Your task to perform on an android device: Go to display settings Image 0: 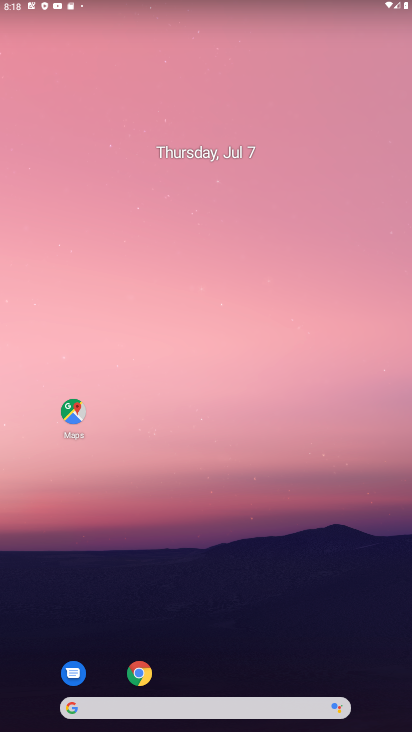
Step 0: press home button
Your task to perform on an android device: Go to display settings Image 1: 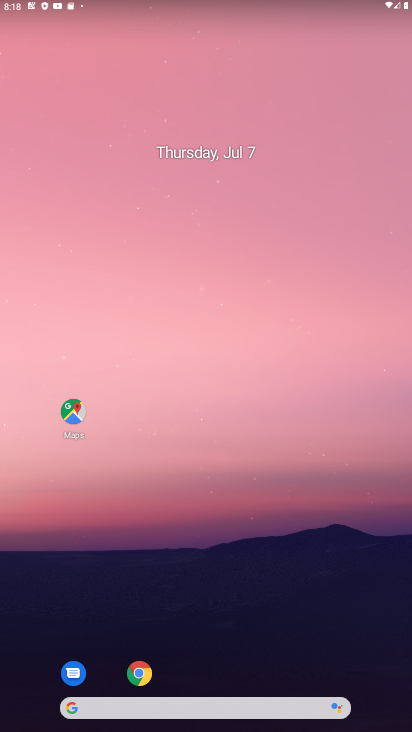
Step 1: drag from (218, 672) to (214, 19)
Your task to perform on an android device: Go to display settings Image 2: 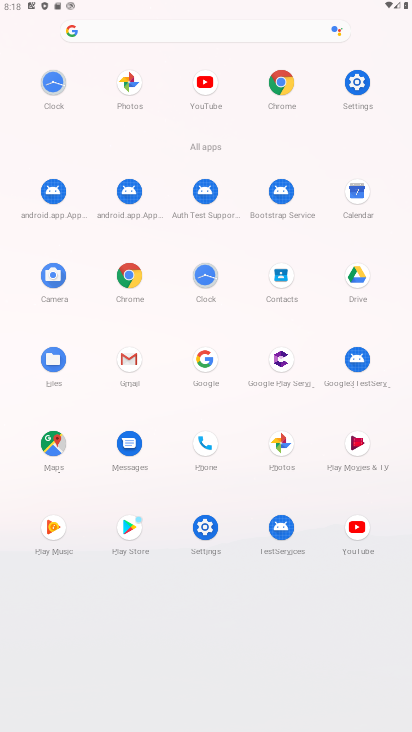
Step 2: click (359, 87)
Your task to perform on an android device: Go to display settings Image 3: 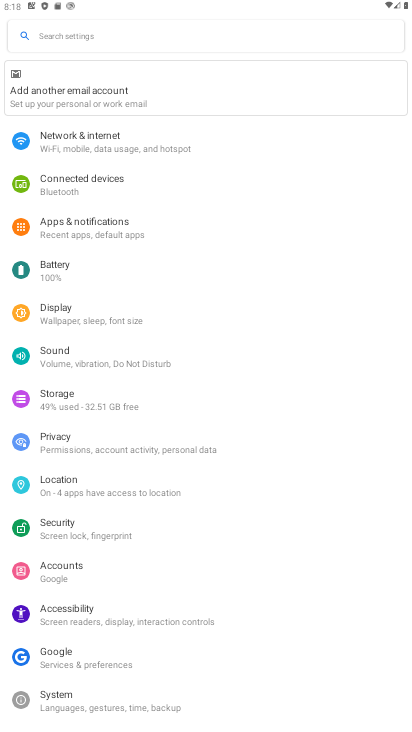
Step 3: click (69, 306)
Your task to perform on an android device: Go to display settings Image 4: 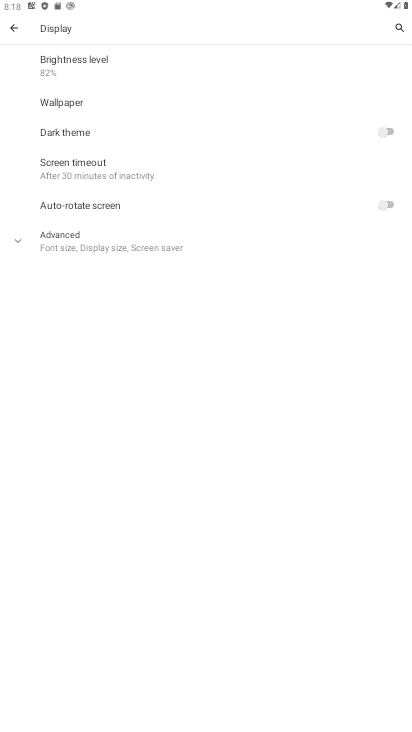
Step 4: click (59, 242)
Your task to perform on an android device: Go to display settings Image 5: 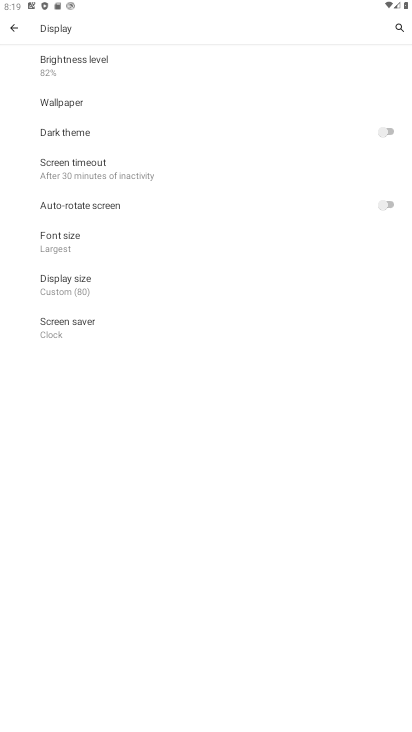
Step 5: task complete